Your task to perform on an android device: toggle sleep mode Image 0: 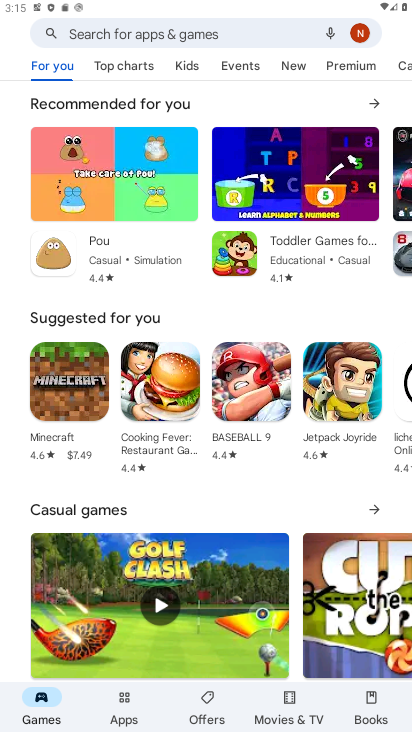
Step 0: press home button
Your task to perform on an android device: toggle sleep mode Image 1: 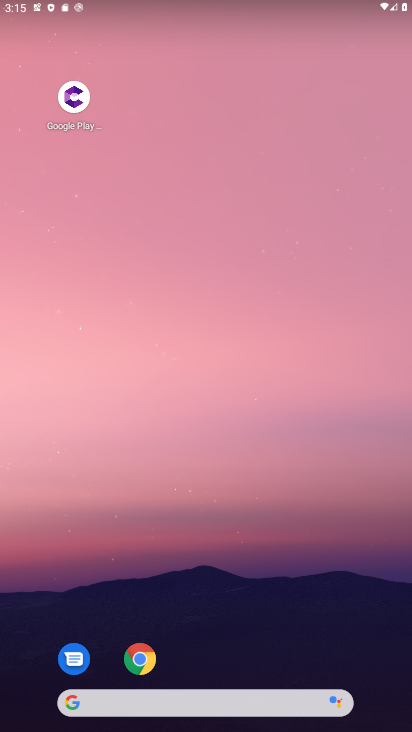
Step 1: drag from (214, 657) to (221, 212)
Your task to perform on an android device: toggle sleep mode Image 2: 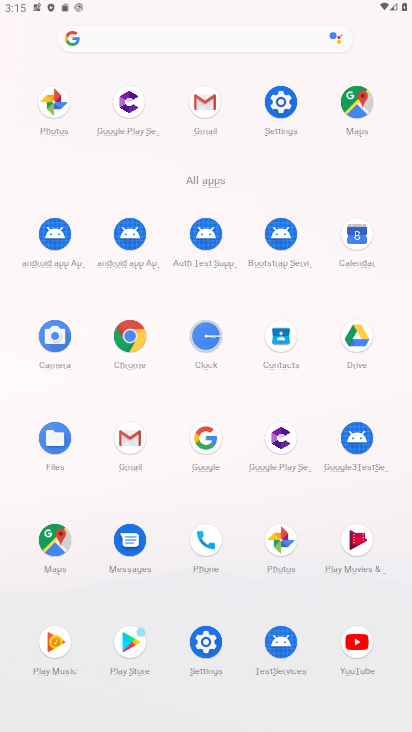
Step 2: click (269, 105)
Your task to perform on an android device: toggle sleep mode Image 3: 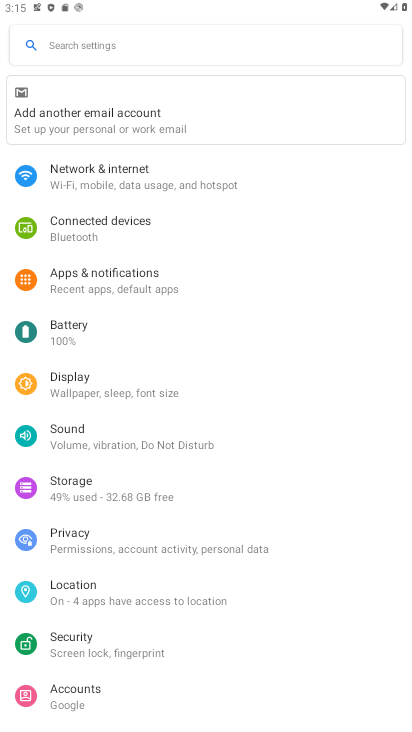
Step 3: click (104, 379)
Your task to perform on an android device: toggle sleep mode Image 4: 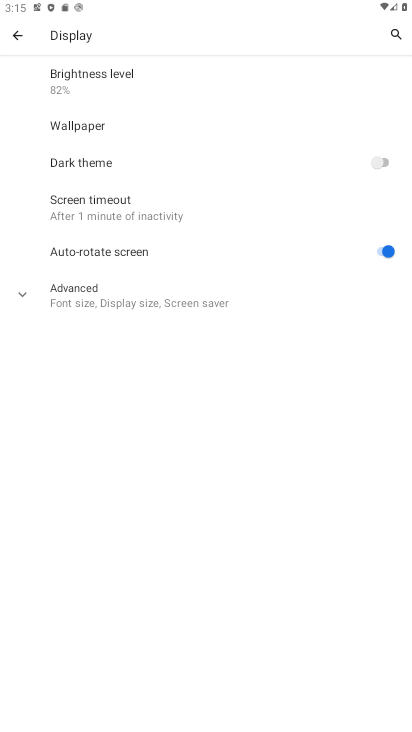
Step 4: click (139, 222)
Your task to perform on an android device: toggle sleep mode Image 5: 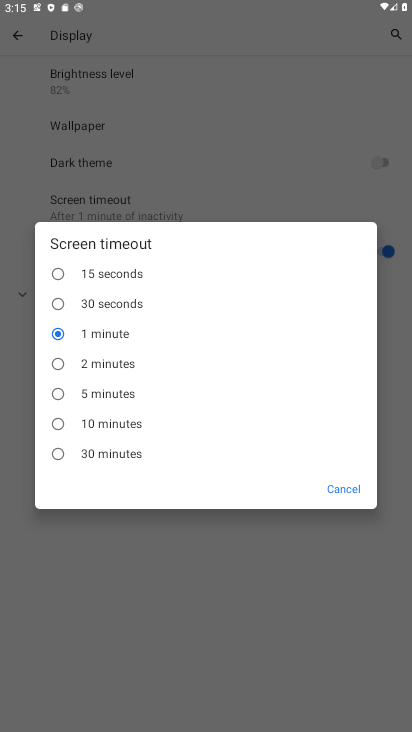
Step 5: click (102, 412)
Your task to perform on an android device: toggle sleep mode Image 6: 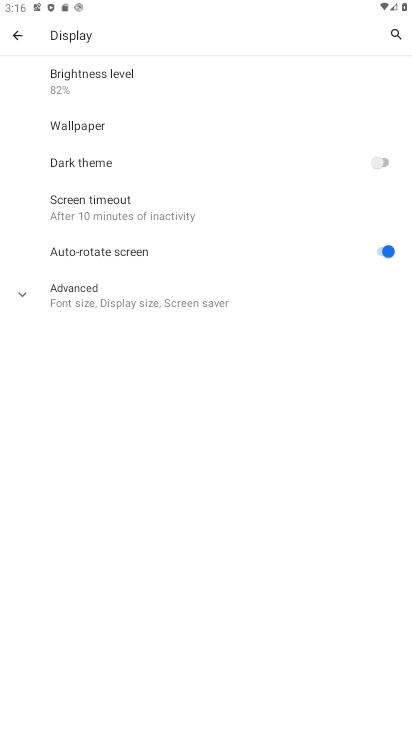
Step 6: task complete